Your task to perform on an android device: turn vacation reply on in the gmail app Image 0: 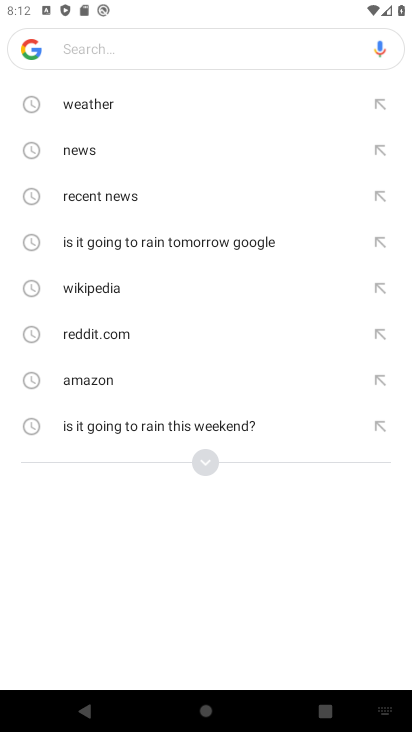
Step 0: press home button
Your task to perform on an android device: turn vacation reply on in the gmail app Image 1: 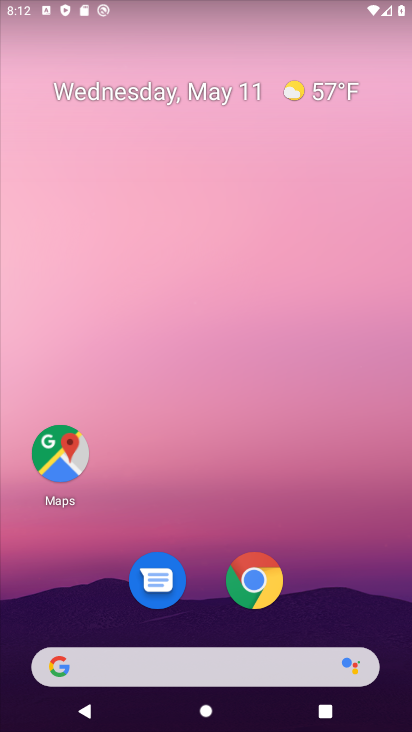
Step 1: drag from (134, 723) to (101, 49)
Your task to perform on an android device: turn vacation reply on in the gmail app Image 2: 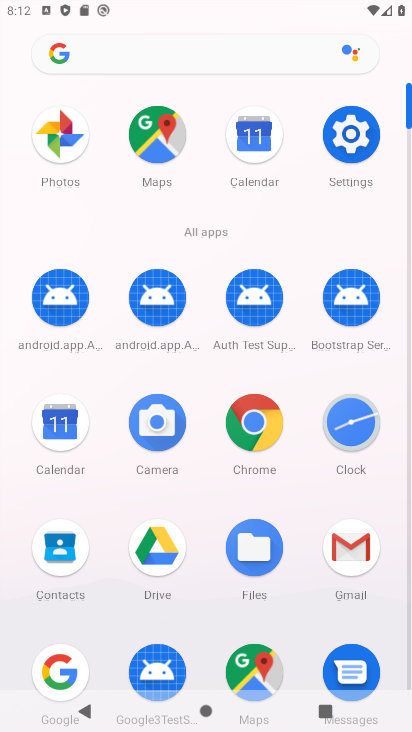
Step 2: click (330, 560)
Your task to perform on an android device: turn vacation reply on in the gmail app Image 3: 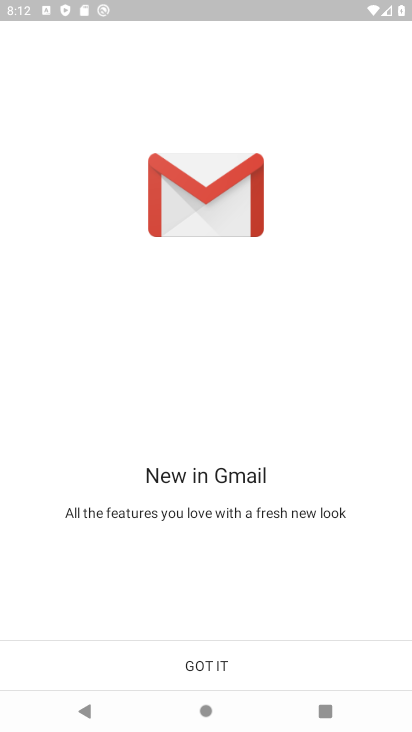
Step 3: click (180, 658)
Your task to perform on an android device: turn vacation reply on in the gmail app Image 4: 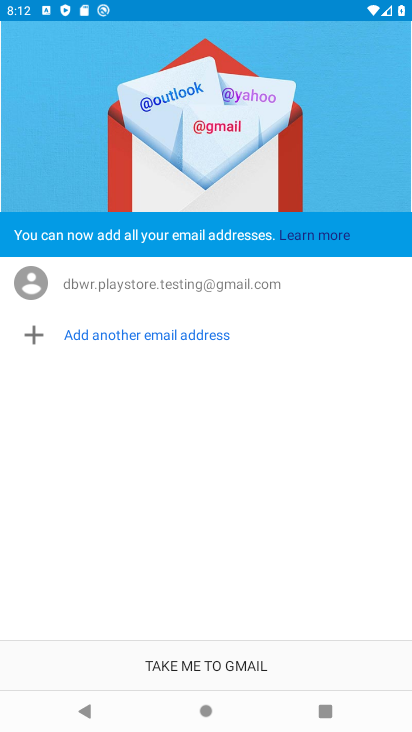
Step 4: click (203, 662)
Your task to perform on an android device: turn vacation reply on in the gmail app Image 5: 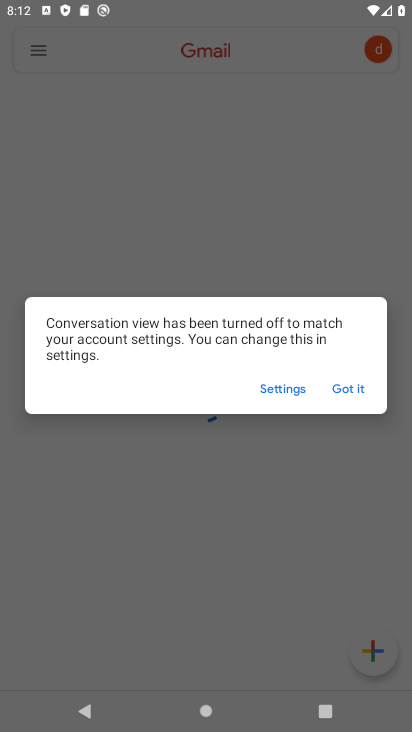
Step 5: click (354, 390)
Your task to perform on an android device: turn vacation reply on in the gmail app Image 6: 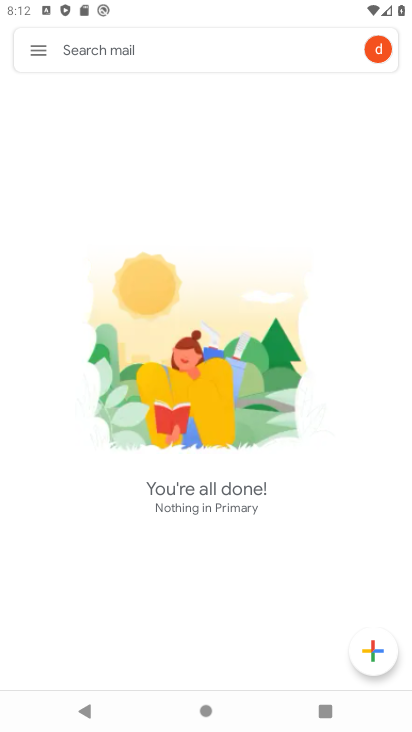
Step 6: click (41, 51)
Your task to perform on an android device: turn vacation reply on in the gmail app Image 7: 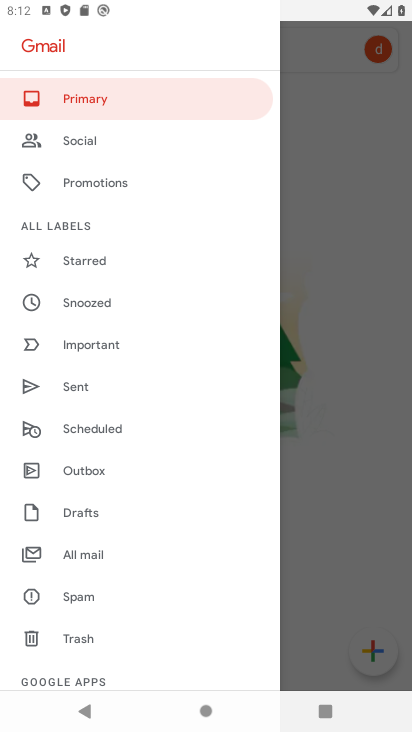
Step 7: drag from (176, 594) to (169, 62)
Your task to perform on an android device: turn vacation reply on in the gmail app Image 8: 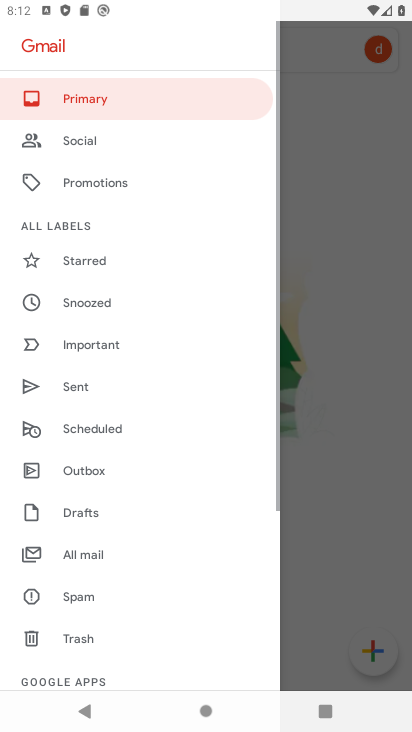
Step 8: drag from (52, 608) to (133, 99)
Your task to perform on an android device: turn vacation reply on in the gmail app Image 9: 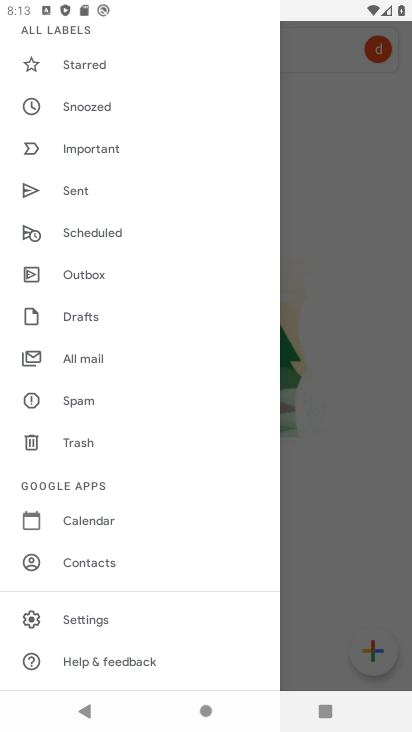
Step 9: click (89, 615)
Your task to perform on an android device: turn vacation reply on in the gmail app Image 10: 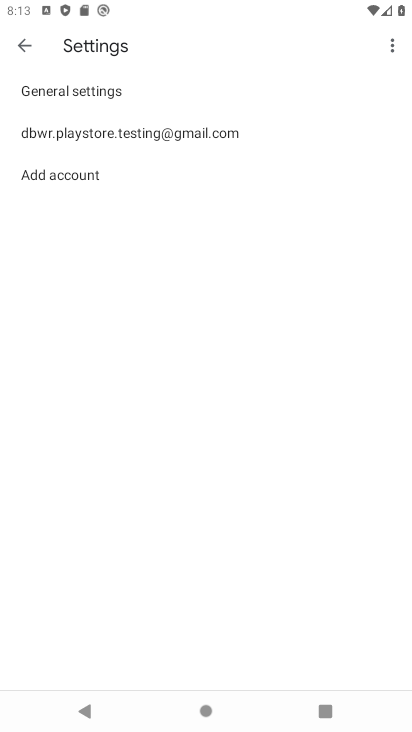
Step 10: click (231, 125)
Your task to perform on an android device: turn vacation reply on in the gmail app Image 11: 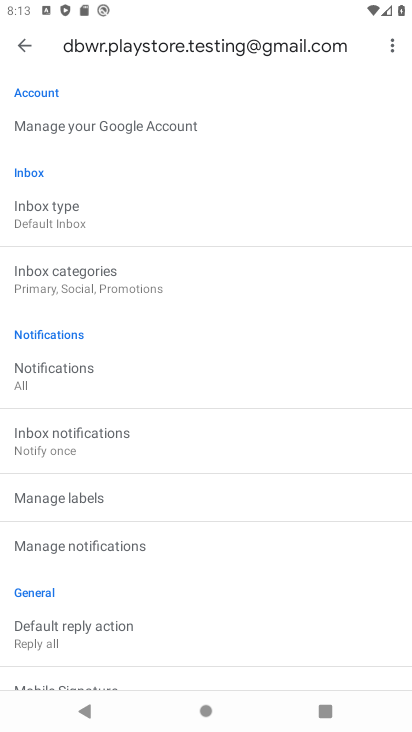
Step 11: drag from (212, 660) to (302, 179)
Your task to perform on an android device: turn vacation reply on in the gmail app Image 12: 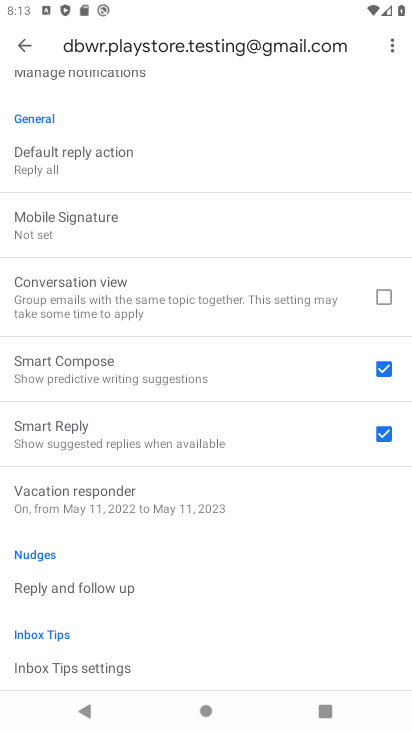
Step 12: click (229, 499)
Your task to perform on an android device: turn vacation reply on in the gmail app Image 13: 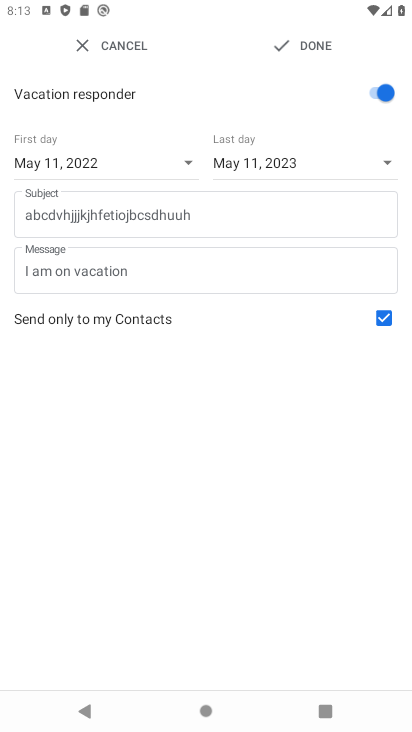
Step 13: click (317, 41)
Your task to perform on an android device: turn vacation reply on in the gmail app Image 14: 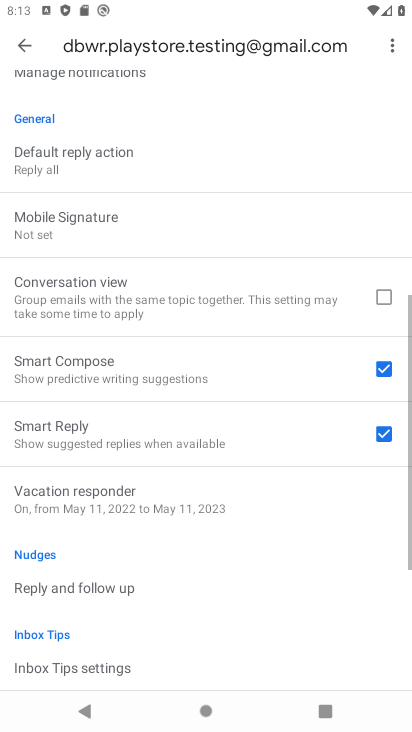
Step 14: task complete